Your task to perform on an android device: Check the latest 3D printers on Target. Image 0: 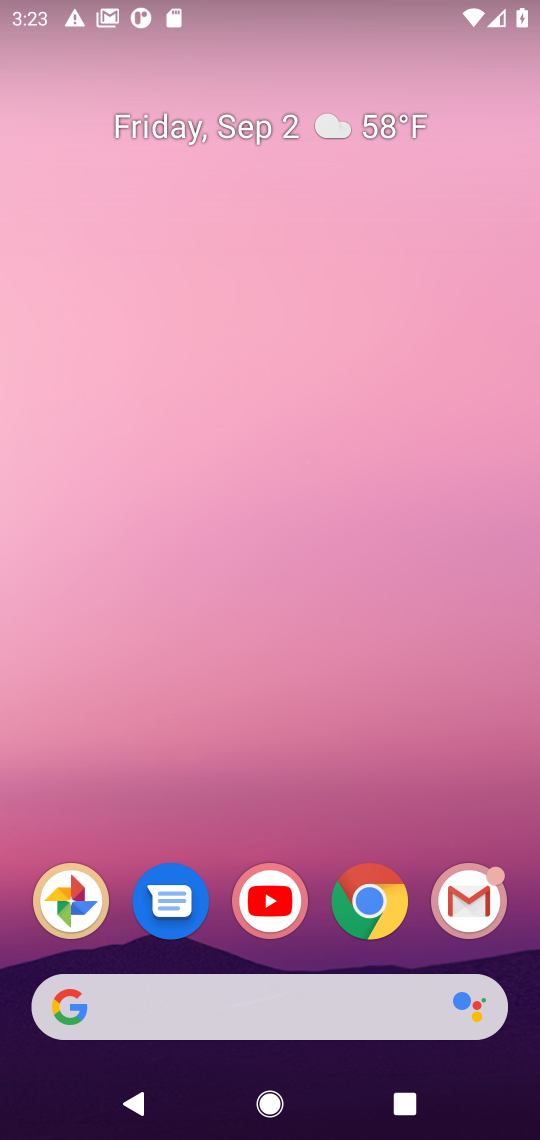
Step 0: click (231, 9)
Your task to perform on an android device: Check the latest 3D printers on Target. Image 1: 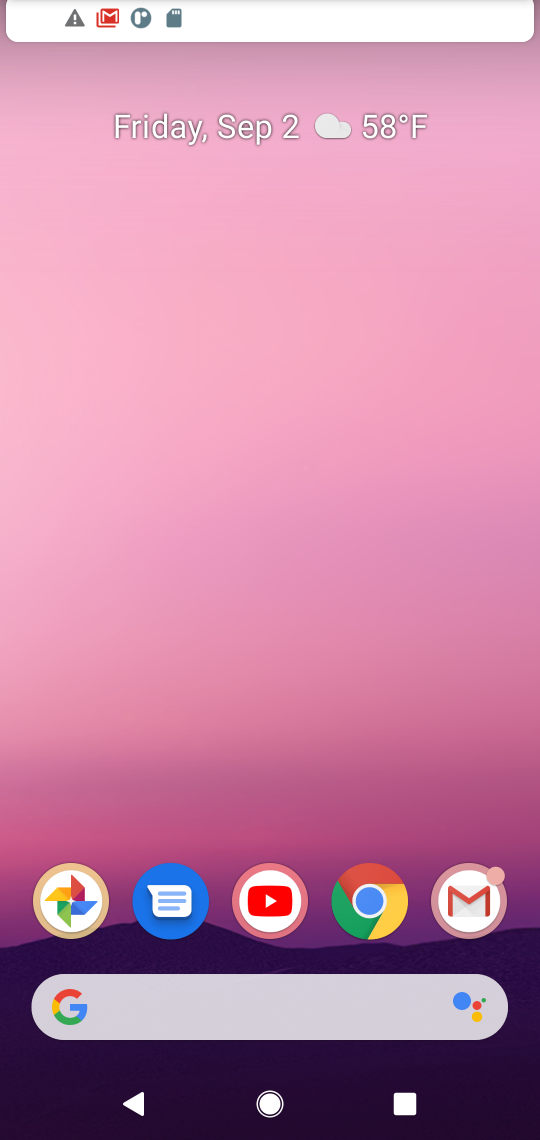
Step 1: drag from (354, 802) to (218, 150)
Your task to perform on an android device: Check the latest 3D printers on Target. Image 2: 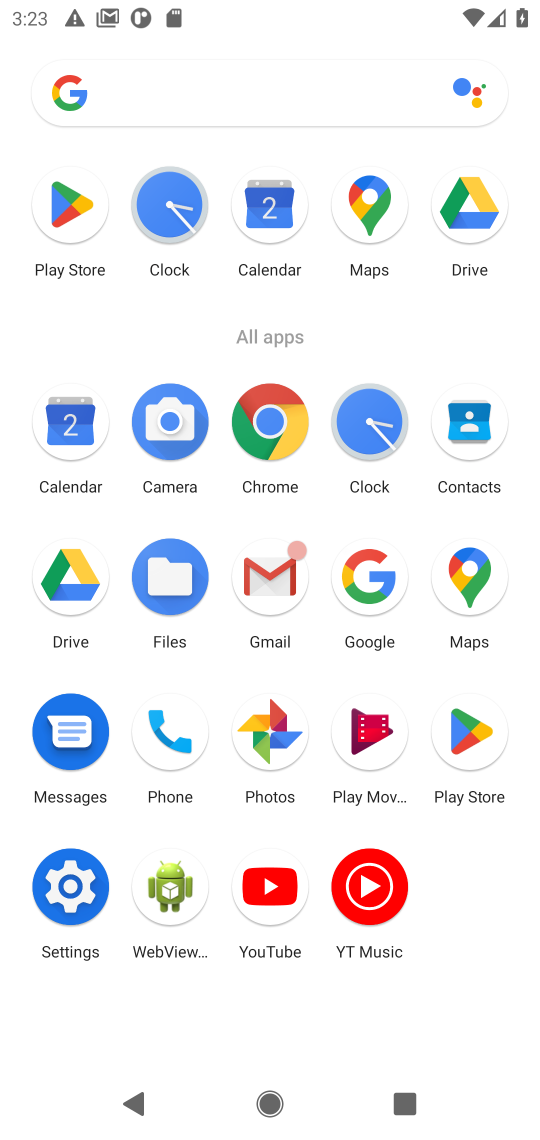
Step 2: click (267, 415)
Your task to perform on an android device: Check the latest 3D printers on Target. Image 3: 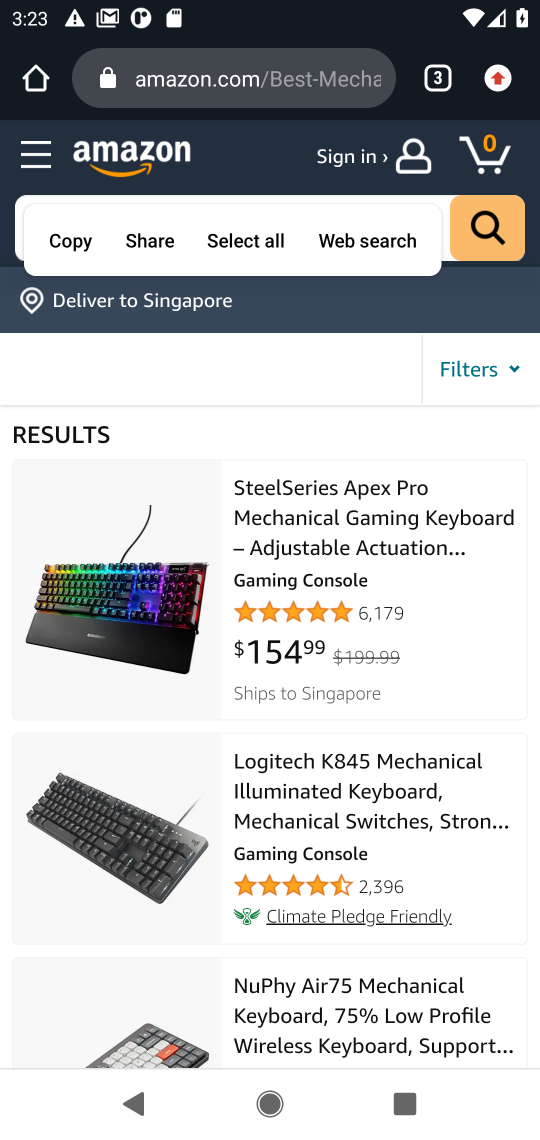
Step 3: click (298, 88)
Your task to perform on an android device: Check the latest 3D printers on Target. Image 4: 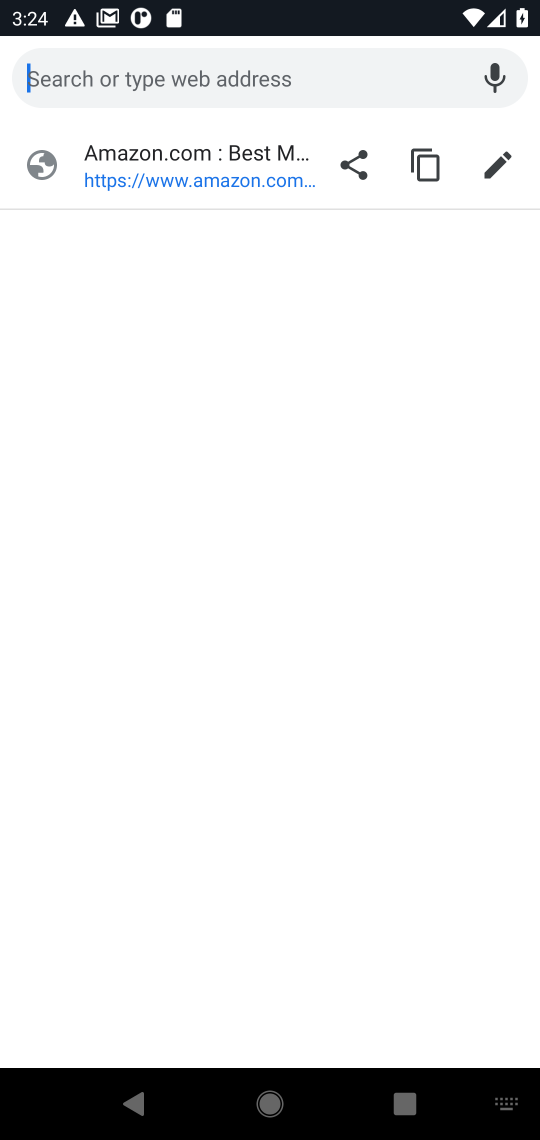
Step 4: type "lates 3d printer on Target"
Your task to perform on an android device: Check the latest 3D printers on Target. Image 5: 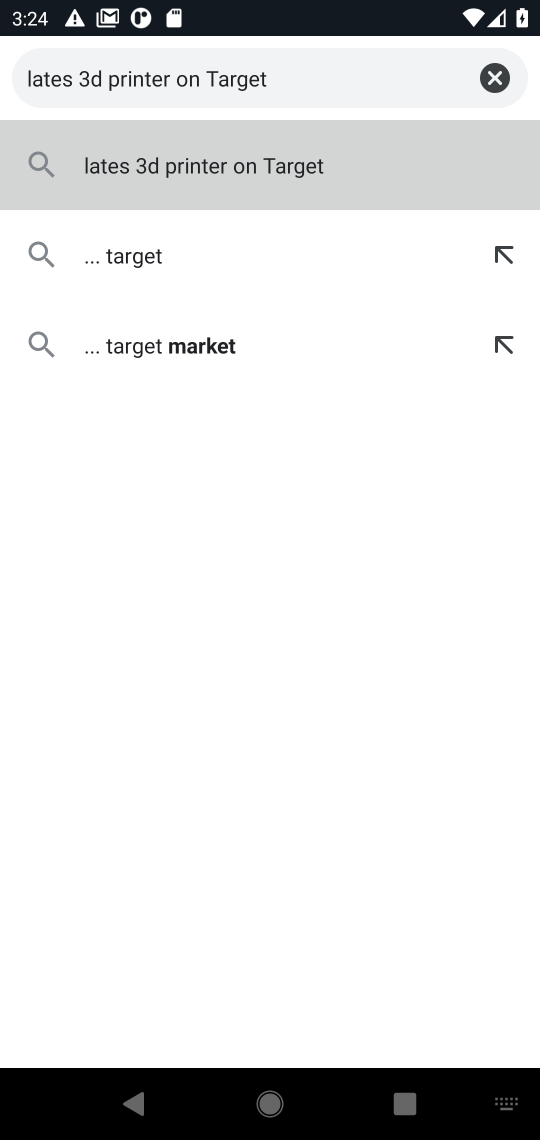
Step 5: press enter
Your task to perform on an android device: Check the latest 3D printers on Target. Image 6: 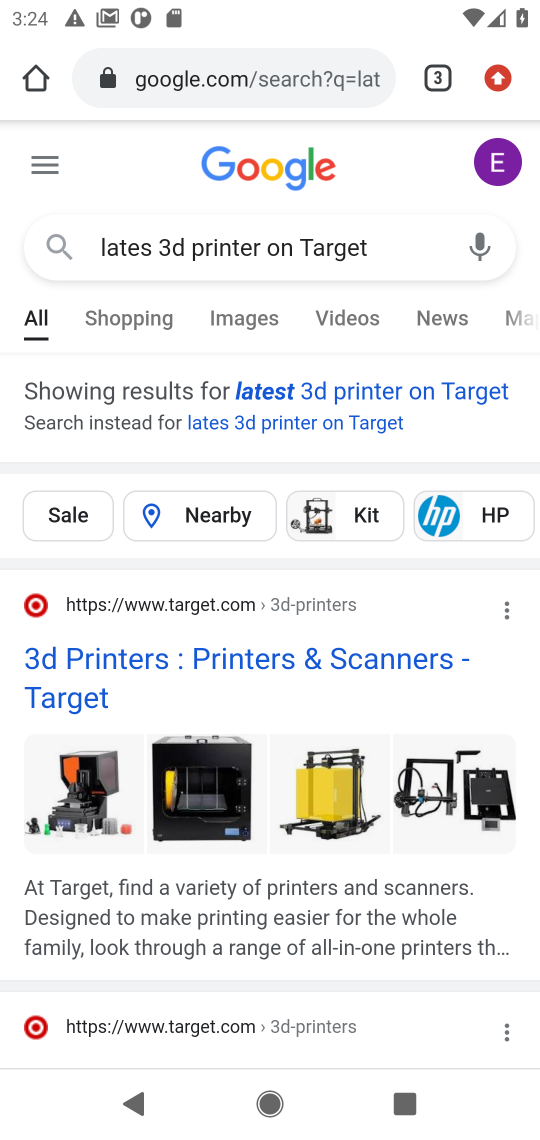
Step 6: click (88, 655)
Your task to perform on an android device: Check the latest 3D printers on Target. Image 7: 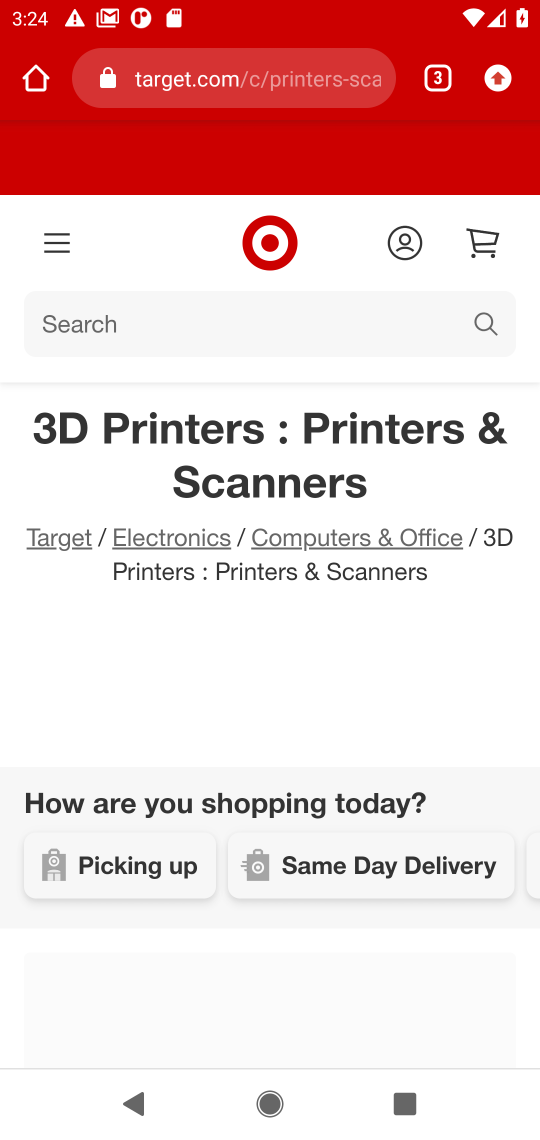
Step 7: task complete